Your task to perform on an android device: set the stopwatch Image 0: 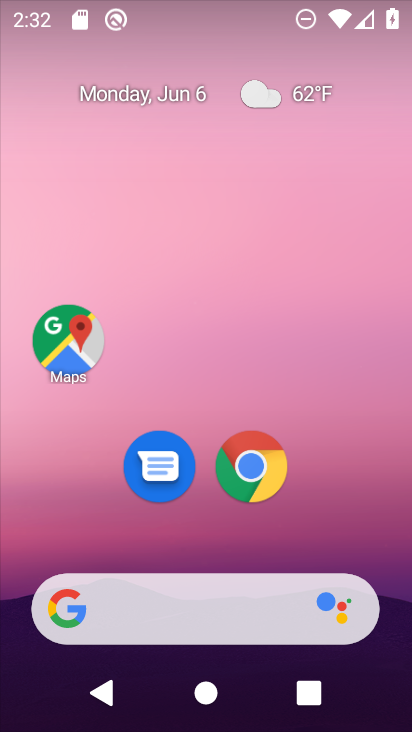
Step 0: drag from (195, 552) to (403, 82)
Your task to perform on an android device: set the stopwatch Image 1: 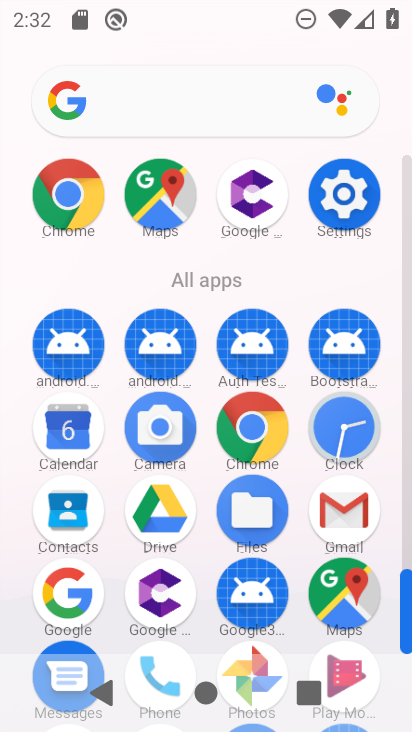
Step 1: click (344, 428)
Your task to perform on an android device: set the stopwatch Image 2: 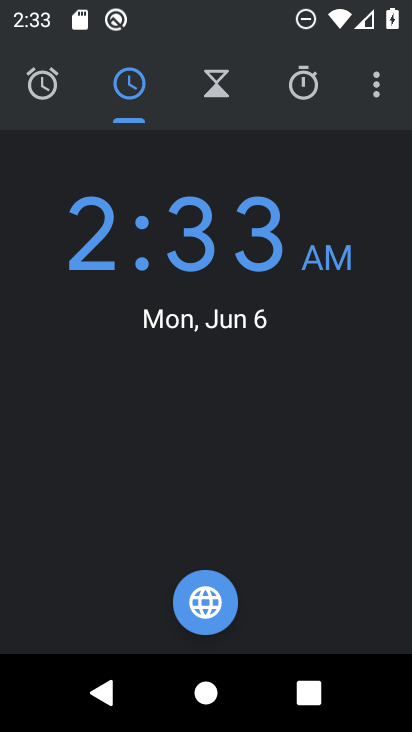
Step 2: click (305, 82)
Your task to perform on an android device: set the stopwatch Image 3: 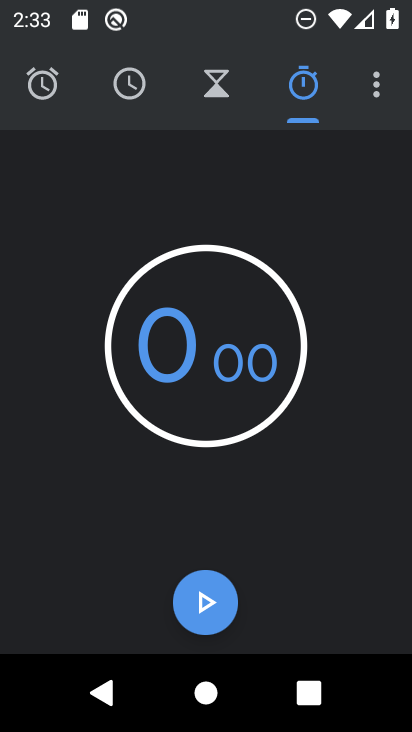
Step 3: click (204, 598)
Your task to perform on an android device: set the stopwatch Image 4: 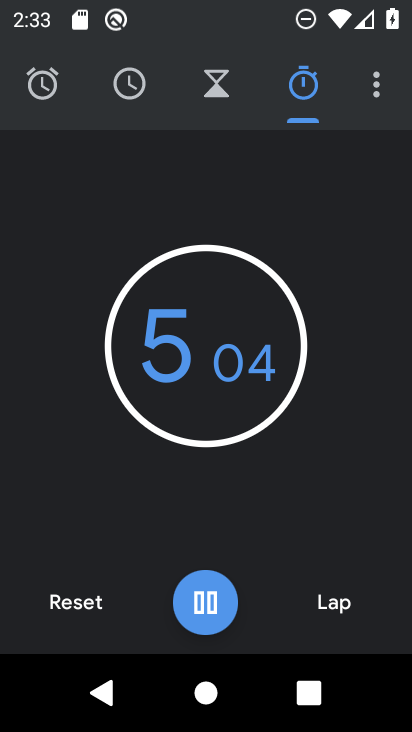
Step 4: click (204, 598)
Your task to perform on an android device: set the stopwatch Image 5: 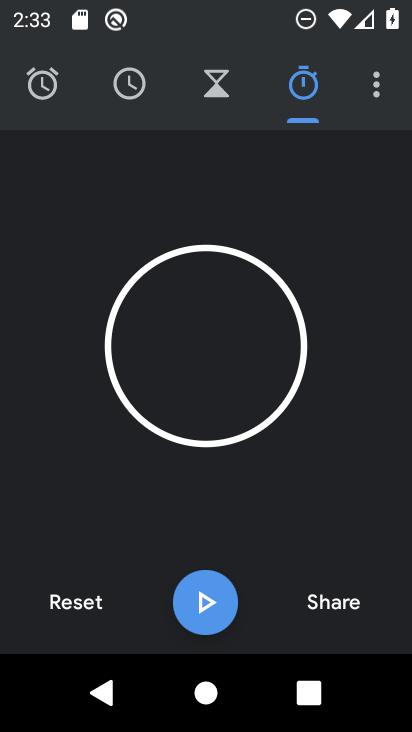
Step 5: task complete